Your task to perform on an android device: move an email to a new category in the gmail app Image 0: 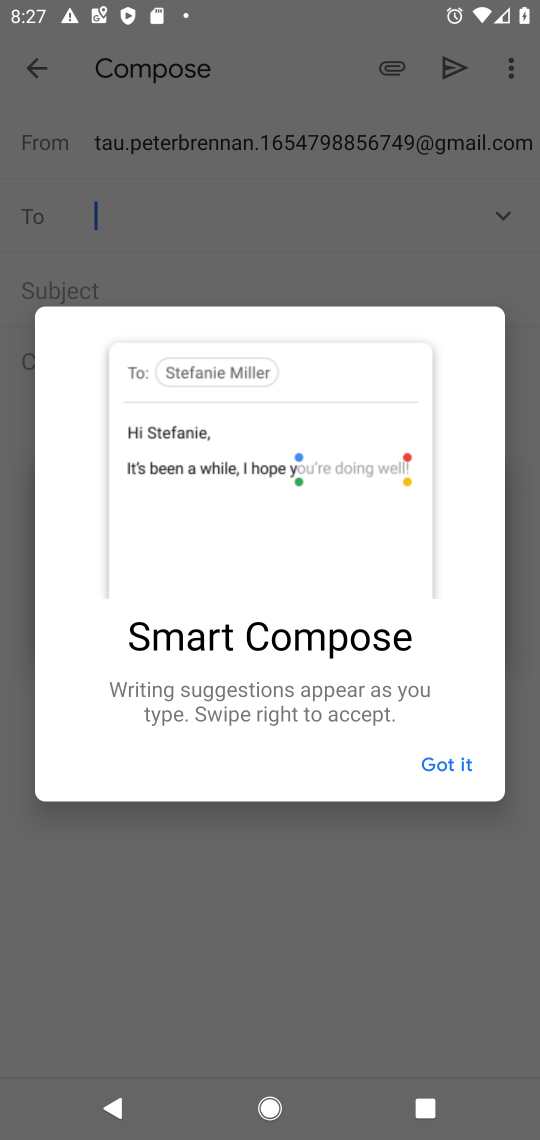
Step 0: press home button
Your task to perform on an android device: move an email to a new category in the gmail app Image 1: 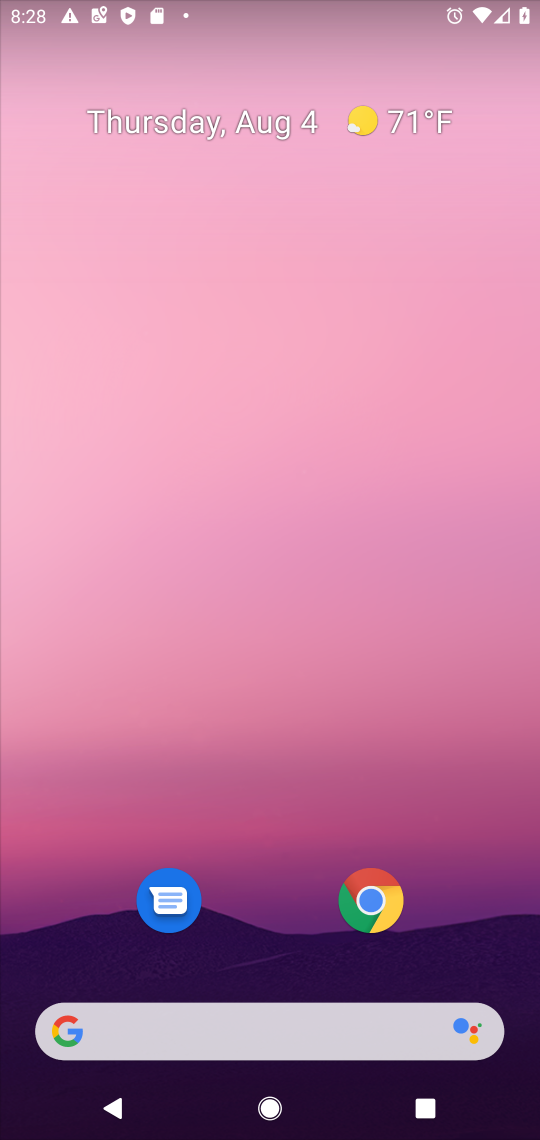
Step 1: drag from (243, 1029) to (266, 95)
Your task to perform on an android device: move an email to a new category in the gmail app Image 2: 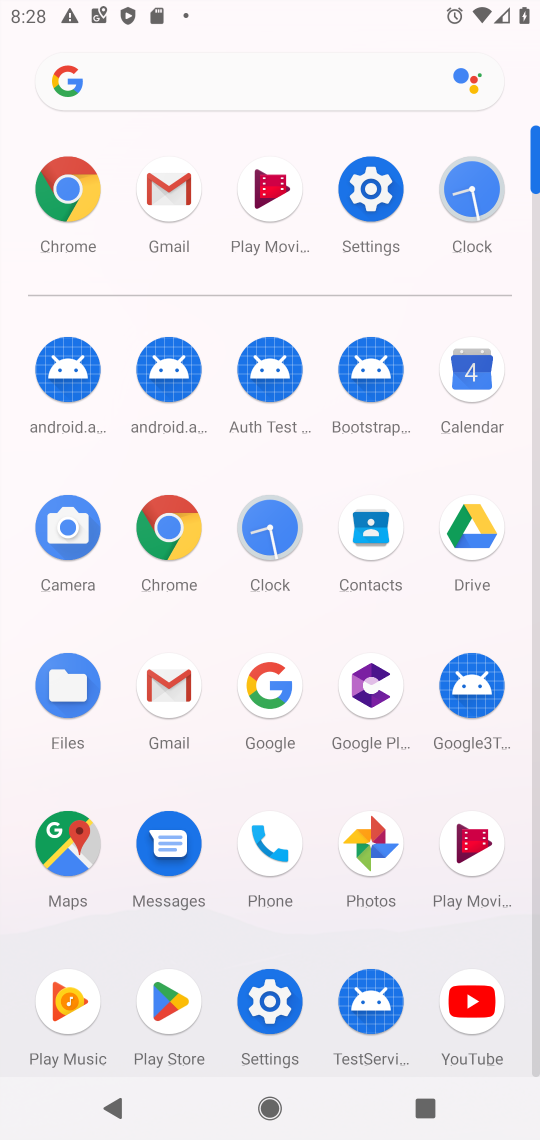
Step 2: click (168, 185)
Your task to perform on an android device: move an email to a new category in the gmail app Image 3: 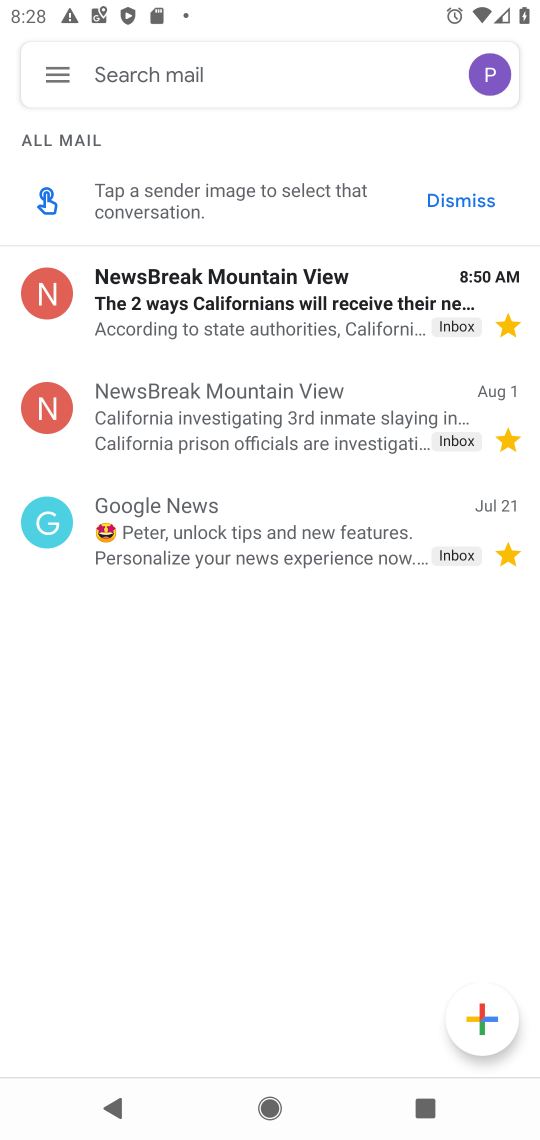
Step 3: click (66, 75)
Your task to perform on an android device: move an email to a new category in the gmail app Image 4: 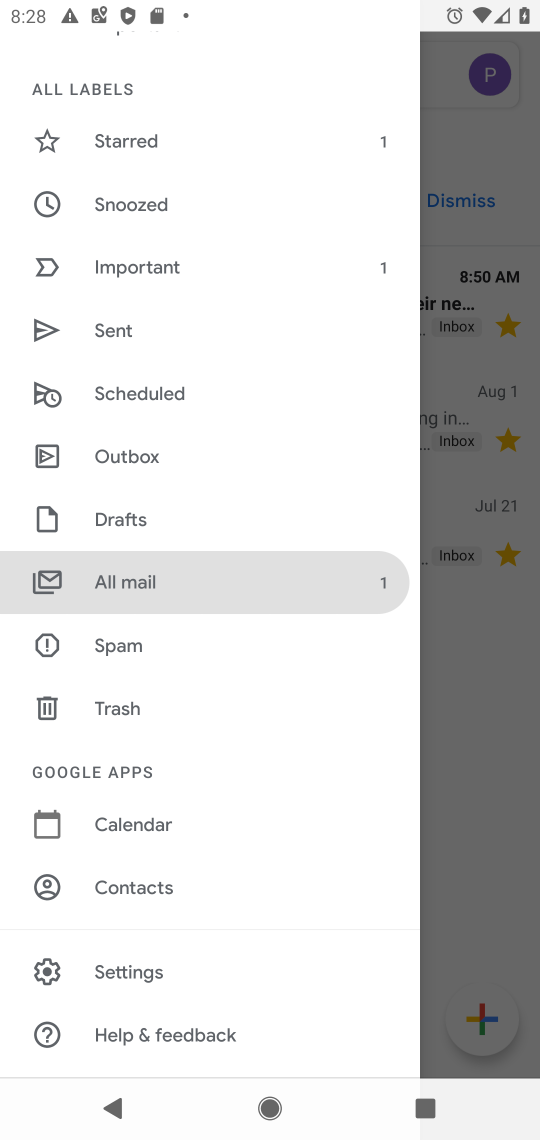
Step 4: click (174, 586)
Your task to perform on an android device: move an email to a new category in the gmail app Image 5: 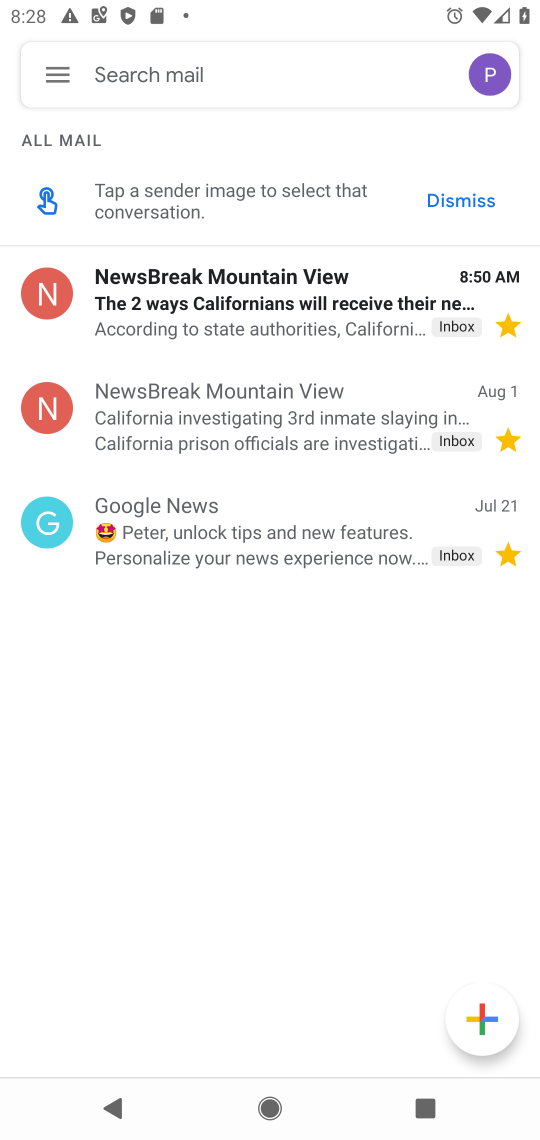
Step 5: click (198, 317)
Your task to perform on an android device: move an email to a new category in the gmail app Image 6: 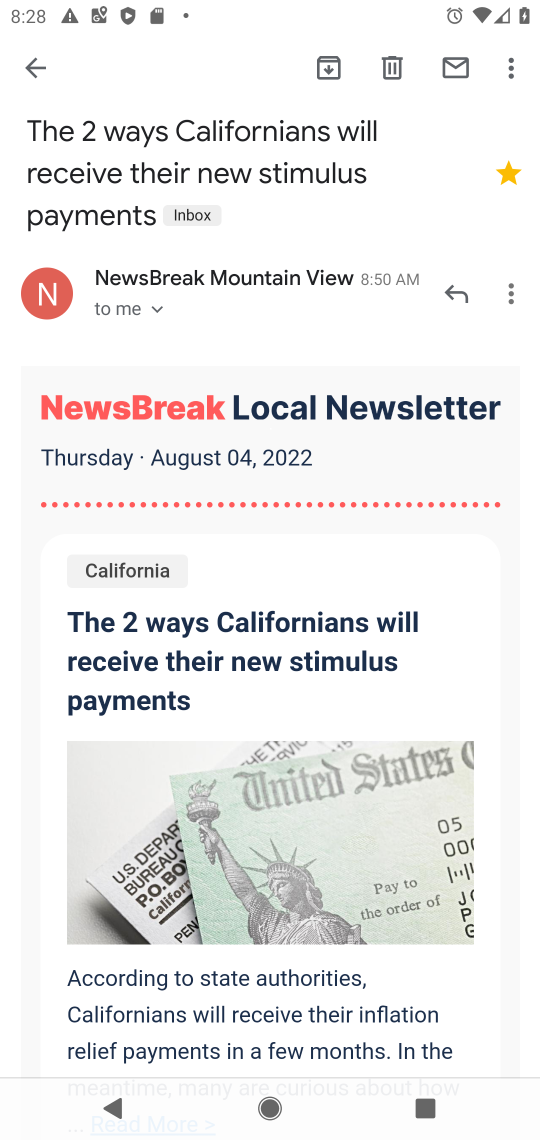
Step 6: click (511, 64)
Your task to perform on an android device: move an email to a new category in the gmail app Image 7: 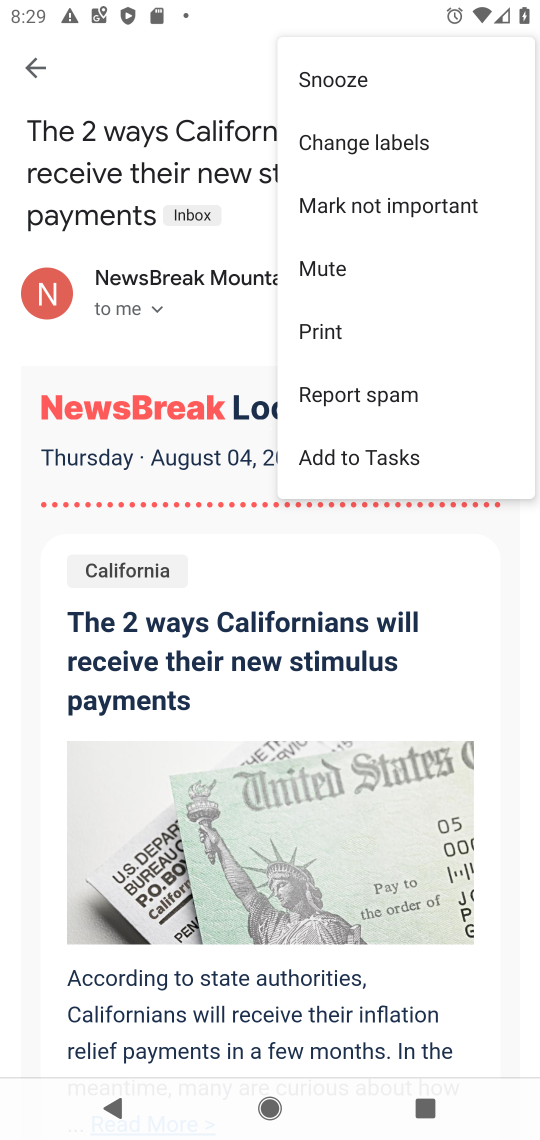
Step 7: click (398, 142)
Your task to perform on an android device: move an email to a new category in the gmail app Image 8: 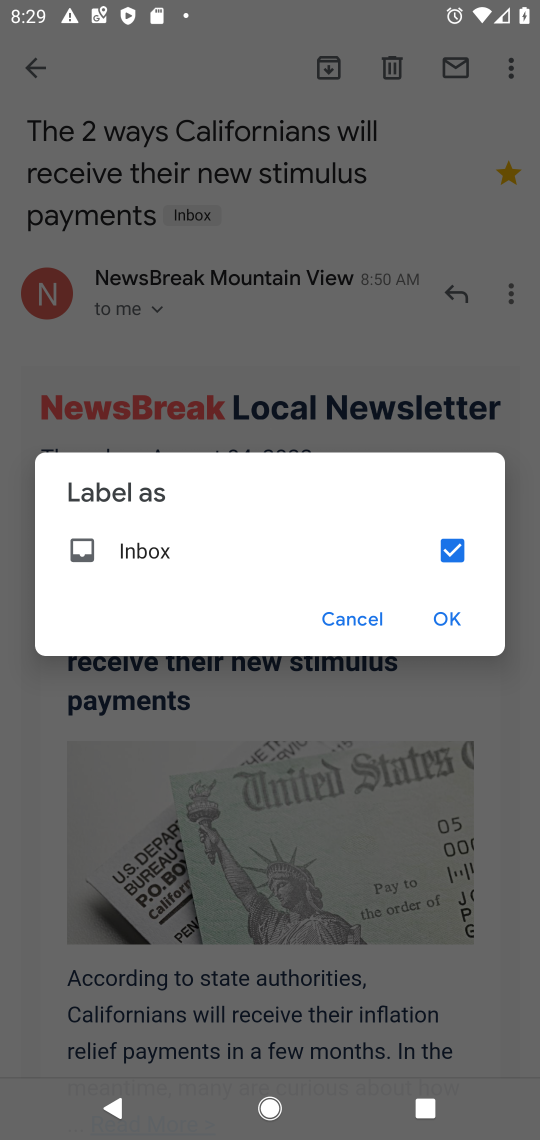
Step 8: click (457, 551)
Your task to perform on an android device: move an email to a new category in the gmail app Image 9: 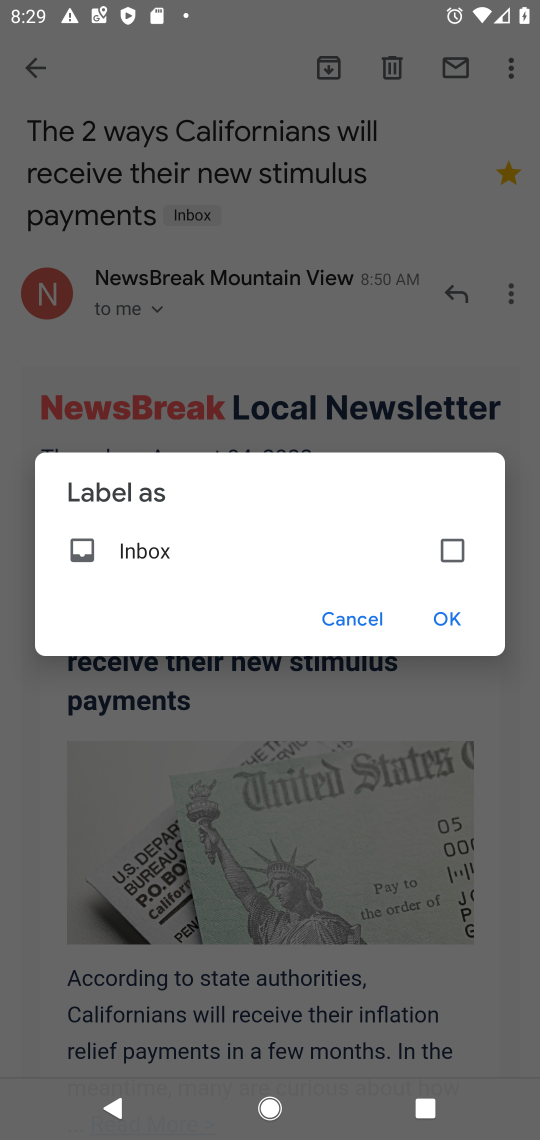
Step 9: click (446, 612)
Your task to perform on an android device: move an email to a new category in the gmail app Image 10: 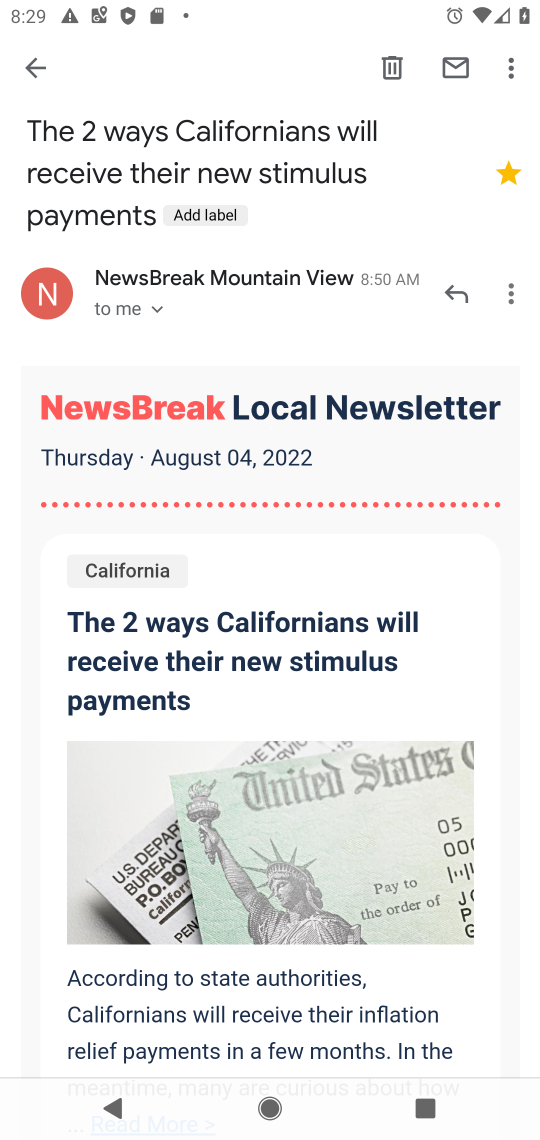
Step 10: task complete